Your task to perform on an android device: move an email to a new category in the gmail app Image 0: 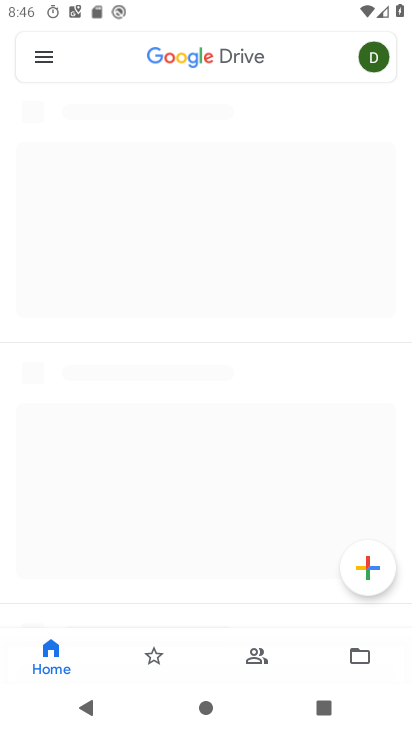
Step 0: press home button
Your task to perform on an android device: move an email to a new category in the gmail app Image 1: 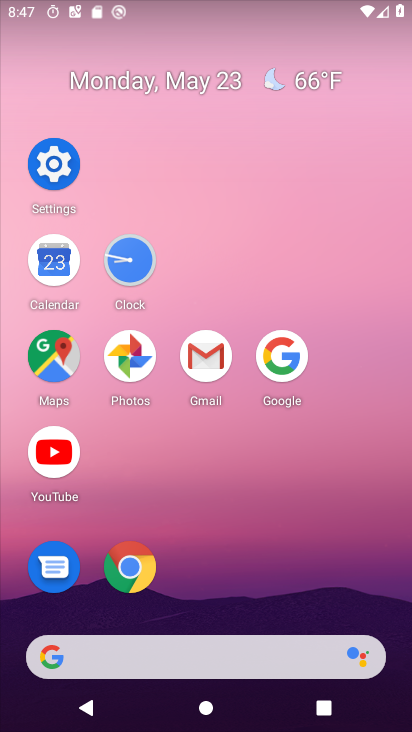
Step 1: click (198, 361)
Your task to perform on an android device: move an email to a new category in the gmail app Image 2: 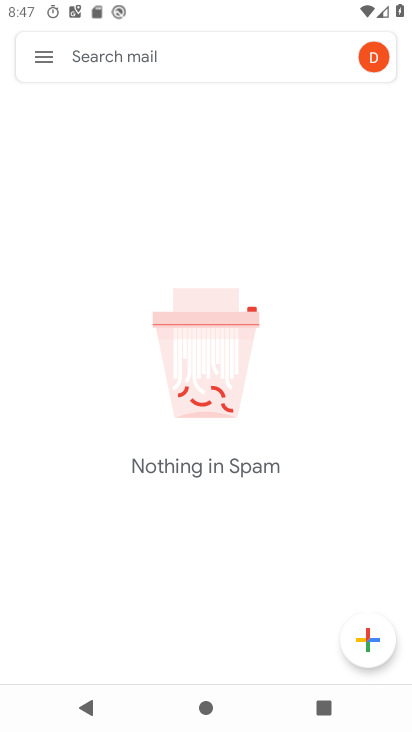
Step 2: click (67, 43)
Your task to perform on an android device: move an email to a new category in the gmail app Image 3: 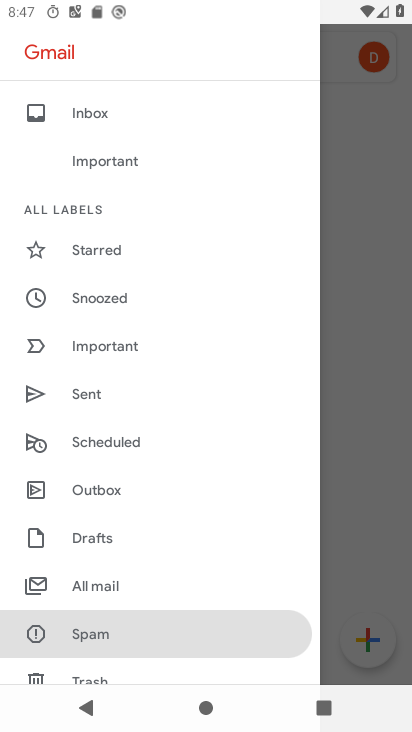
Step 3: drag from (239, 476) to (223, 185)
Your task to perform on an android device: move an email to a new category in the gmail app Image 4: 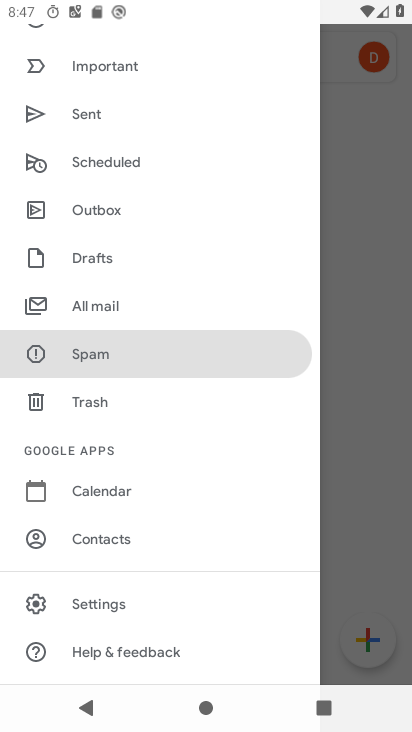
Step 4: click (152, 300)
Your task to perform on an android device: move an email to a new category in the gmail app Image 5: 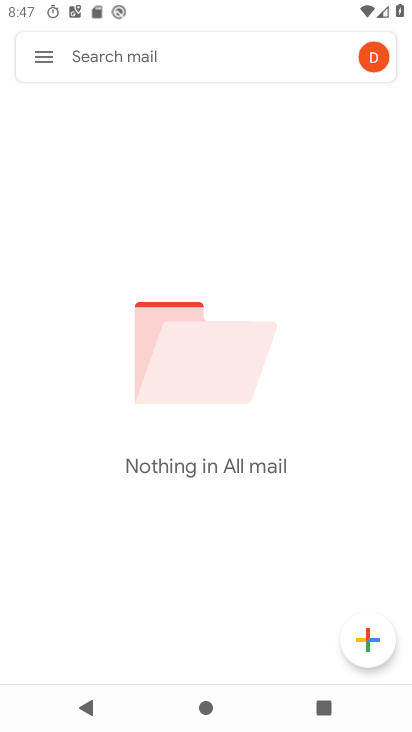
Step 5: task complete